Your task to perform on an android device: Open Yahoo.com Image 0: 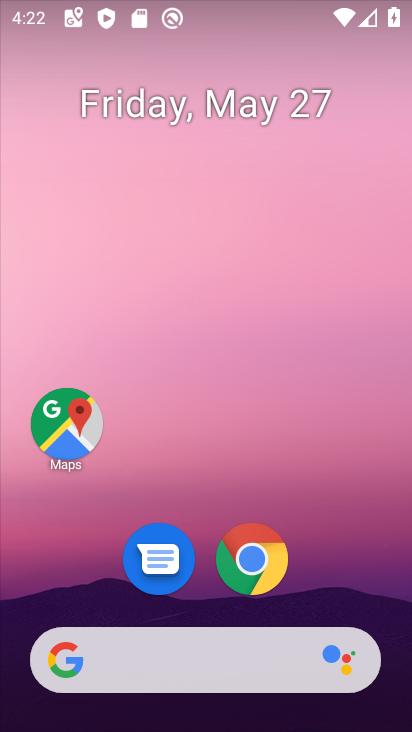
Step 0: click (242, 556)
Your task to perform on an android device: Open Yahoo.com Image 1: 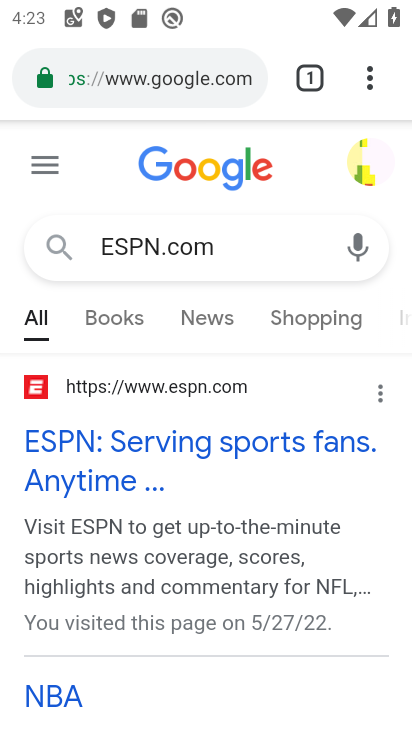
Step 1: click (245, 74)
Your task to perform on an android device: Open Yahoo.com Image 2: 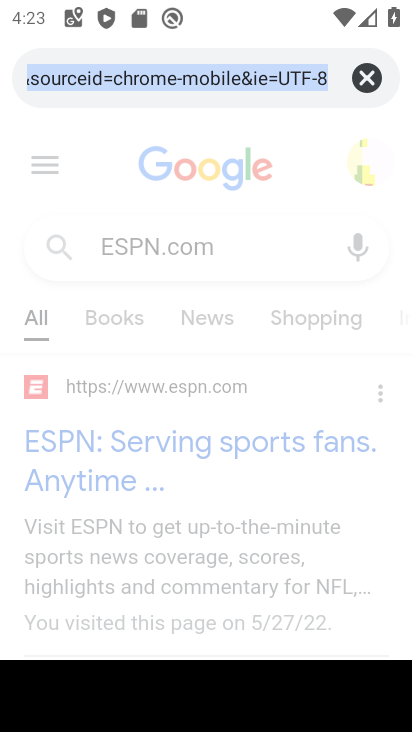
Step 2: click (369, 75)
Your task to perform on an android device: Open Yahoo.com Image 3: 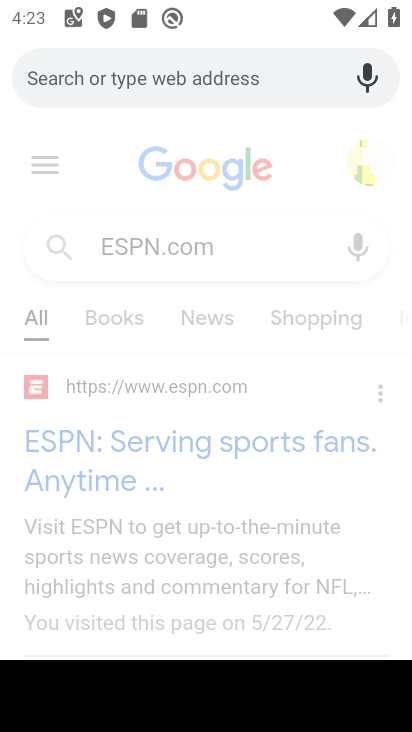
Step 3: type "Yahoo.com"
Your task to perform on an android device: Open Yahoo.com Image 4: 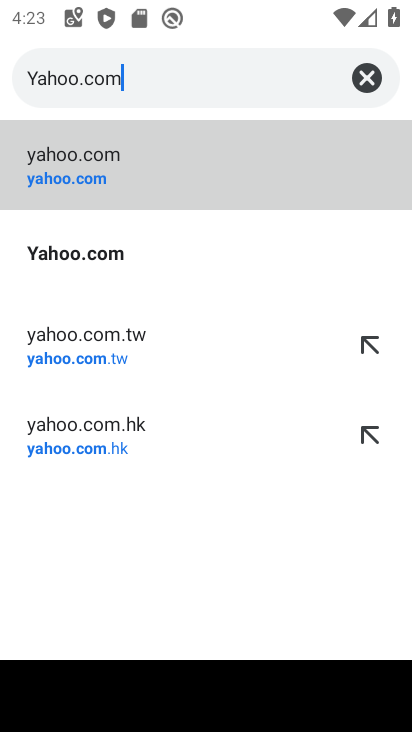
Step 4: click (77, 247)
Your task to perform on an android device: Open Yahoo.com Image 5: 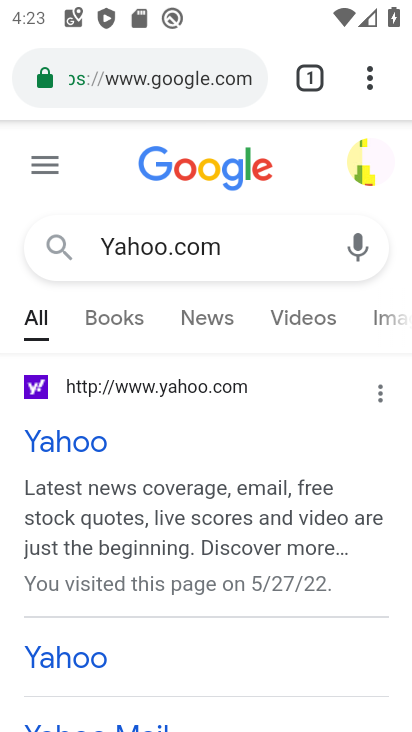
Step 5: task complete